Your task to perform on an android device: open a bookmark in the chrome app Image 0: 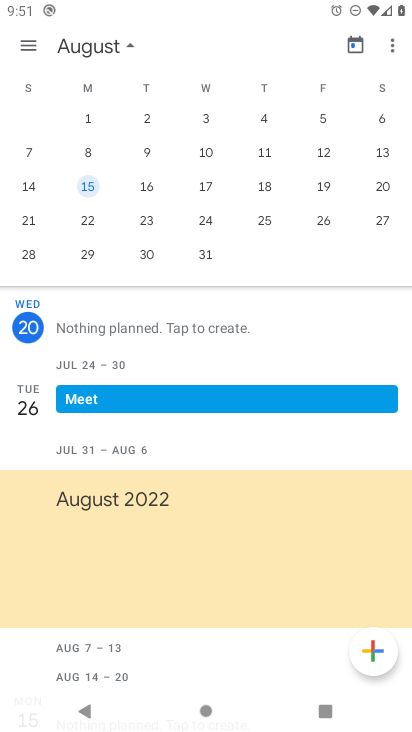
Step 0: press home button
Your task to perform on an android device: open a bookmark in the chrome app Image 1: 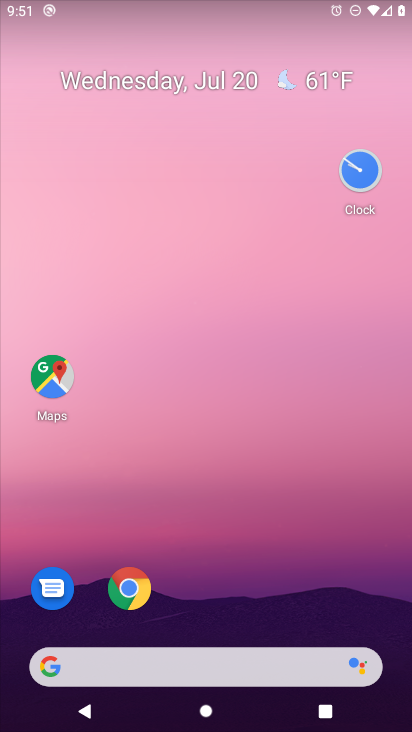
Step 1: click (121, 590)
Your task to perform on an android device: open a bookmark in the chrome app Image 2: 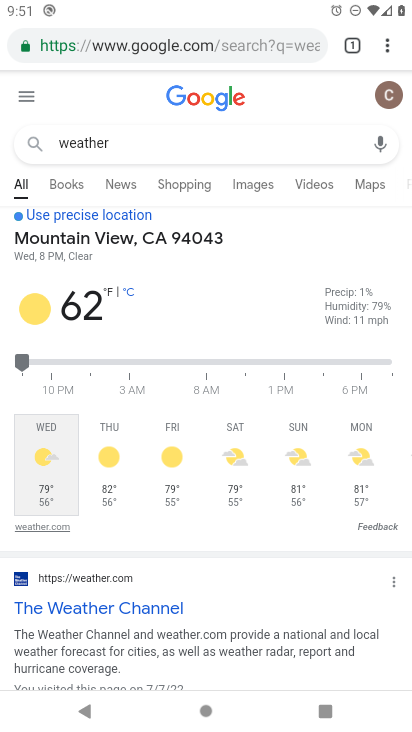
Step 2: click (390, 41)
Your task to perform on an android device: open a bookmark in the chrome app Image 3: 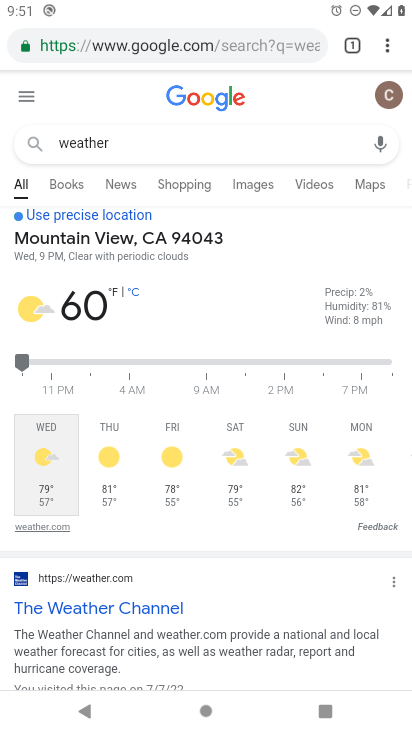
Step 3: click (388, 44)
Your task to perform on an android device: open a bookmark in the chrome app Image 4: 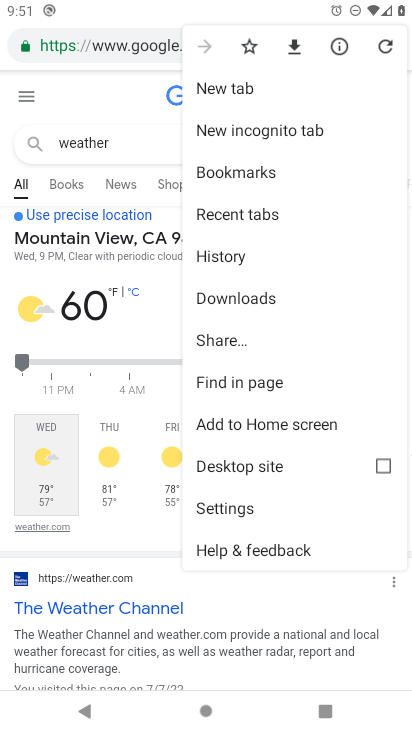
Step 4: click (230, 173)
Your task to perform on an android device: open a bookmark in the chrome app Image 5: 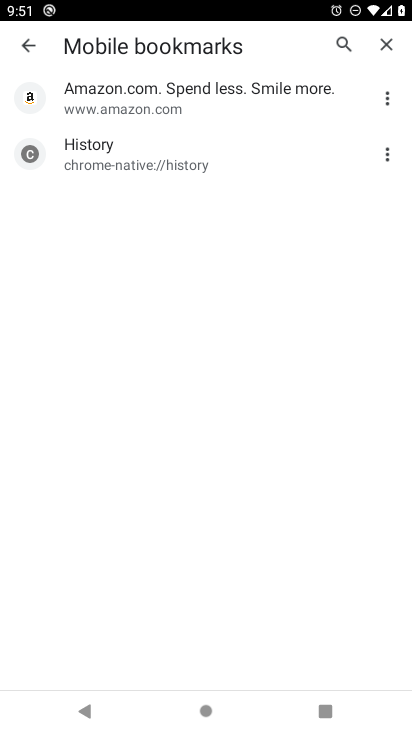
Step 5: task complete